Your task to perform on an android device: Open Wikipedia Image 0: 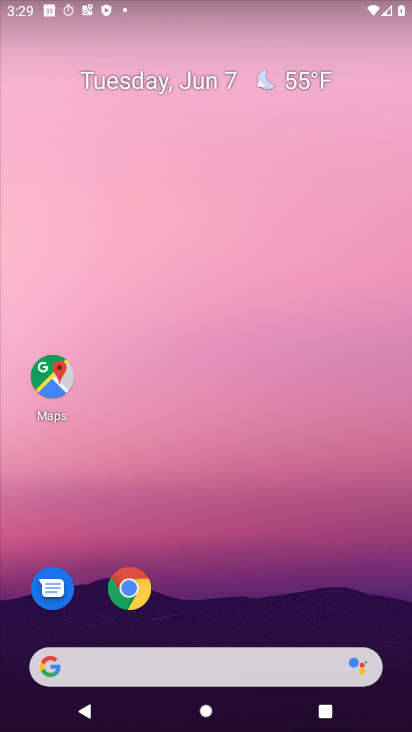
Step 0: press home button
Your task to perform on an android device: Open Wikipedia Image 1: 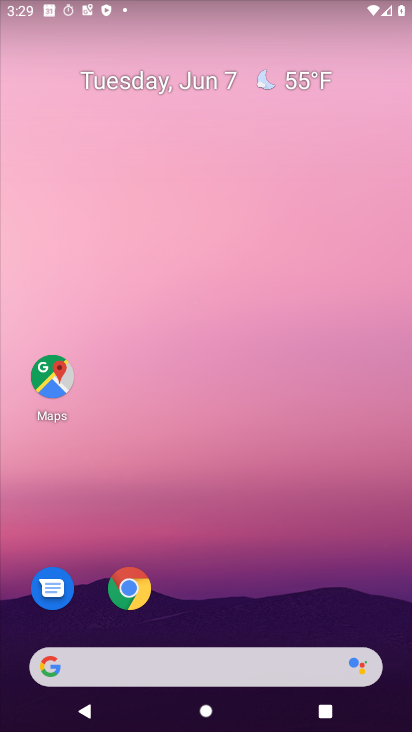
Step 1: click (50, 672)
Your task to perform on an android device: Open Wikipedia Image 2: 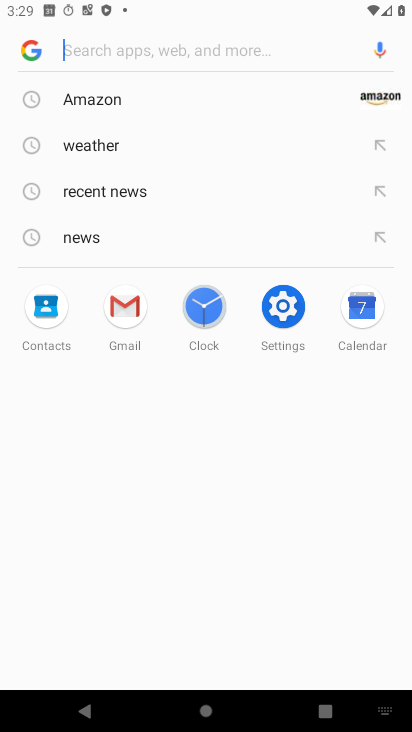
Step 2: type "Wikipedia"
Your task to perform on an android device: Open Wikipedia Image 3: 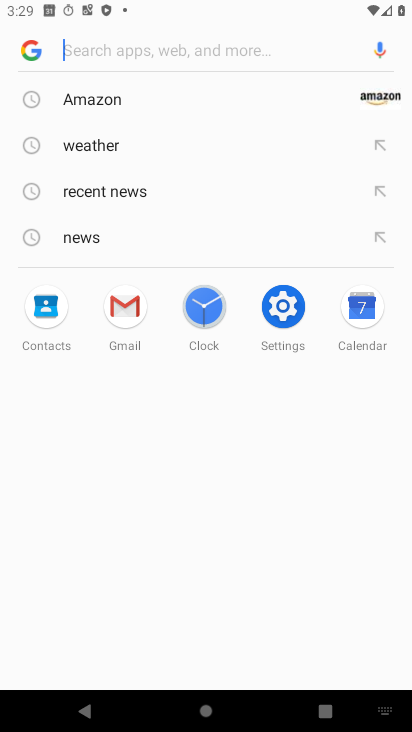
Step 3: click (151, 42)
Your task to perform on an android device: Open Wikipedia Image 4: 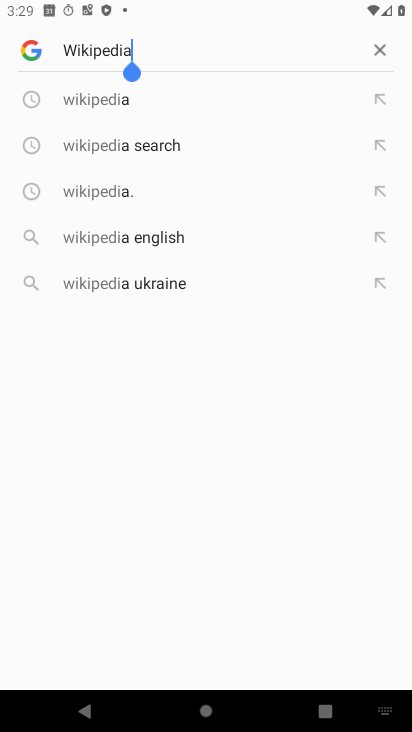
Step 4: click (88, 98)
Your task to perform on an android device: Open Wikipedia Image 5: 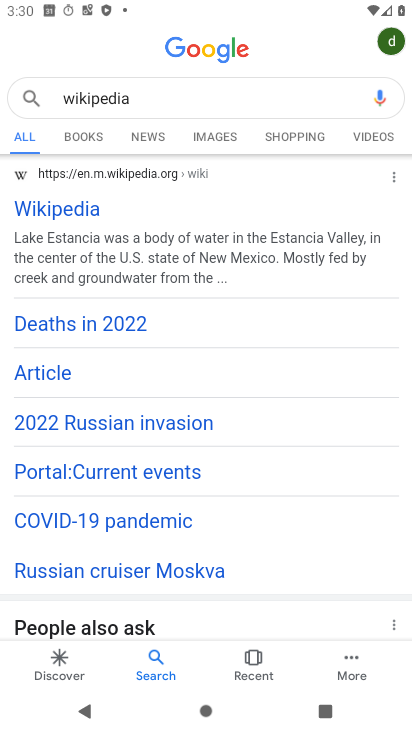
Step 5: click (43, 216)
Your task to perform on an android device: Open Wikipedia Image 6: 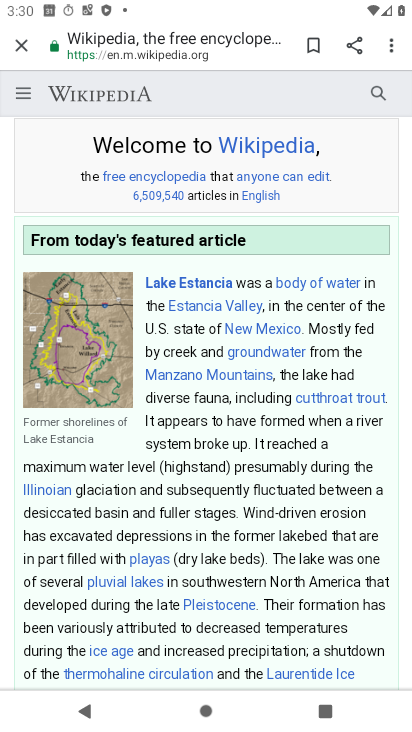
Step 6: task complete